Your task to perform on an android device: empty trash in google photos Image 0: 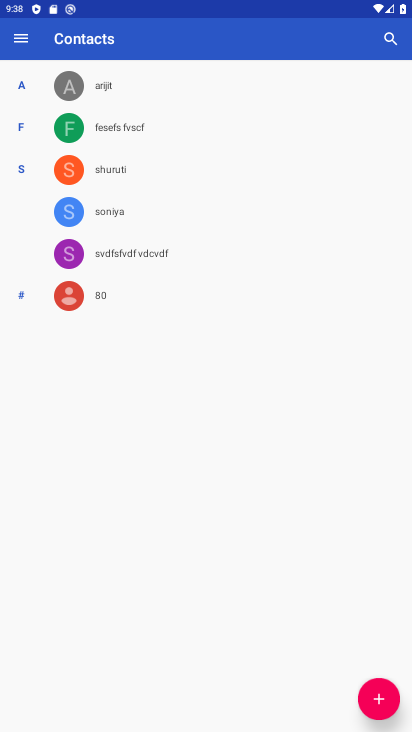
Step 0: press home button
Your task to perform on an android device: empty trash in google photos Image 1: 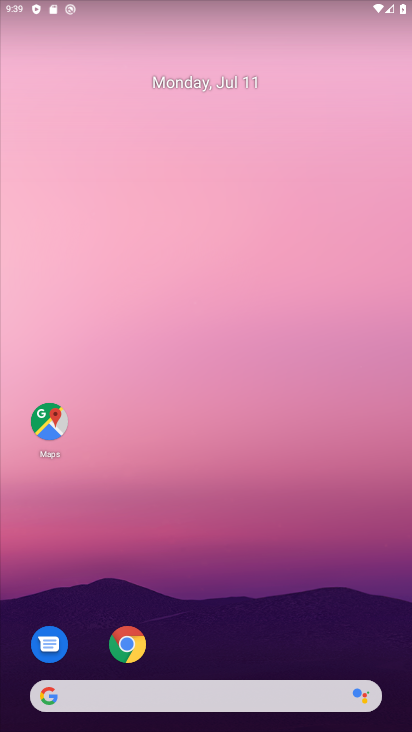
Step 1: drag from (278, 566) to (247, 56)
Your task to perform on an android device: empty trash in google photos Image 2: 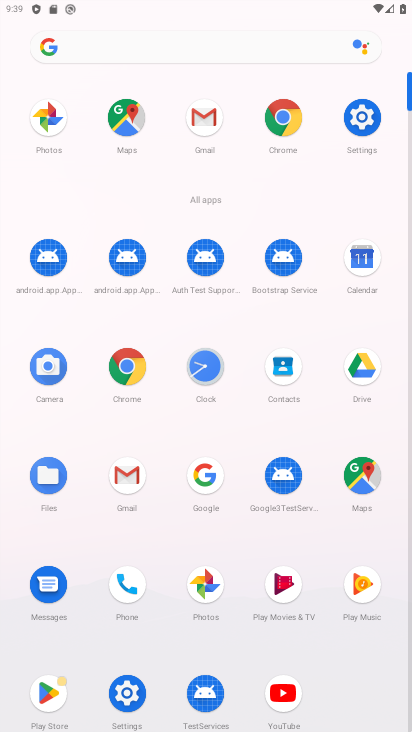
Step 2: click (204, 580)
Your task to perform on an android device: empty trash in google photos Image 3: 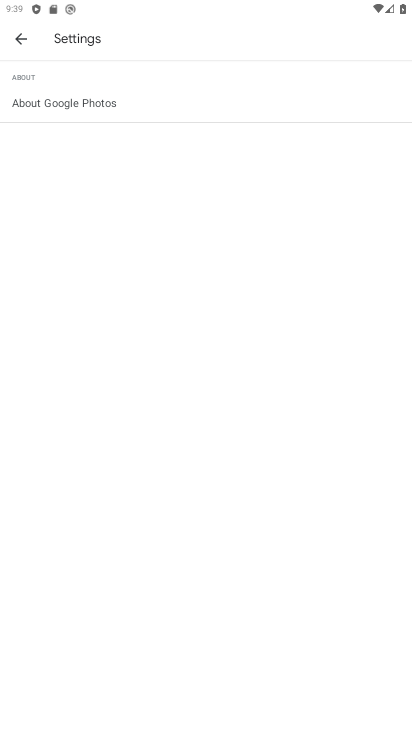
Step 3: click (21, 35)
Your task to perform on an android device: empty trash in google photos Image 4: 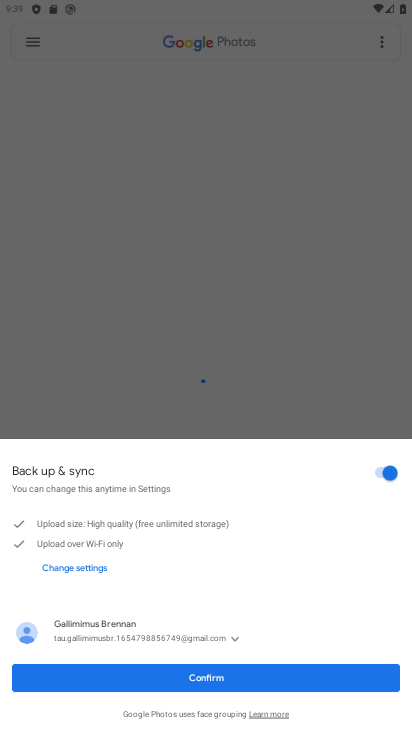
Step 4: click (86, 672)
Your task to perform on an android device: empty trash in google photos Image 5: 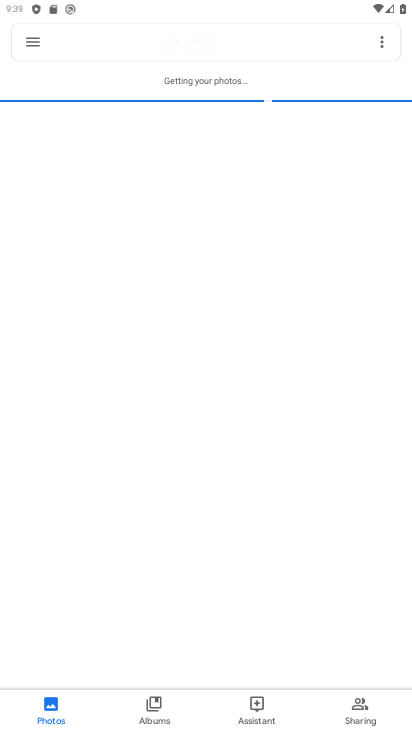
Step 5: click (34, 35)
Your task to perform on an android device: empty trash in google photos Image 6: 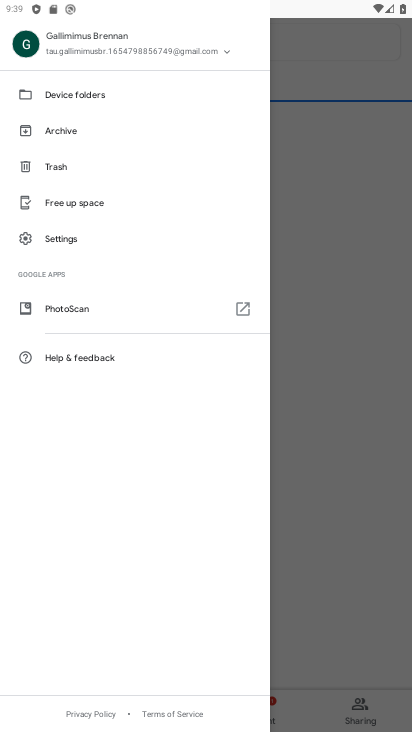
Step 6: click (69, 167)
Your task to perform on an android device: empty trash in google photos Image 7: 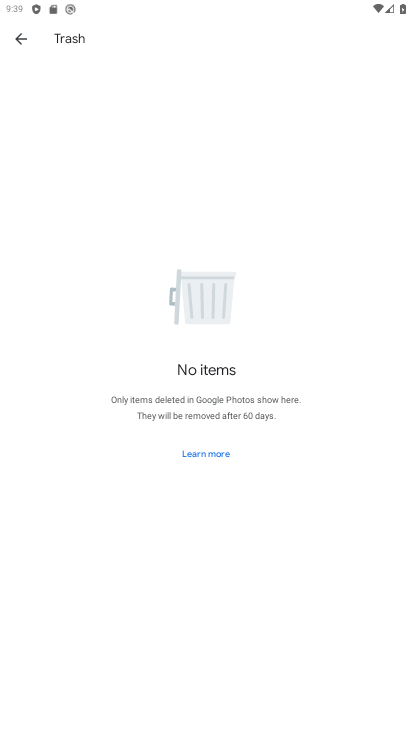
Step 7: task complete